Your task to perform on an android device: Play the last video I watched on Youtube Image 0: 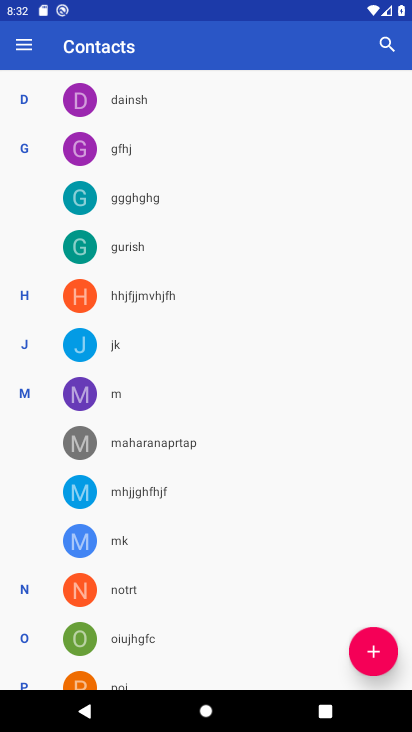
Step 0: press home button
Your task to perform on an android device: Play the last video I watched on Youtube Image 1: 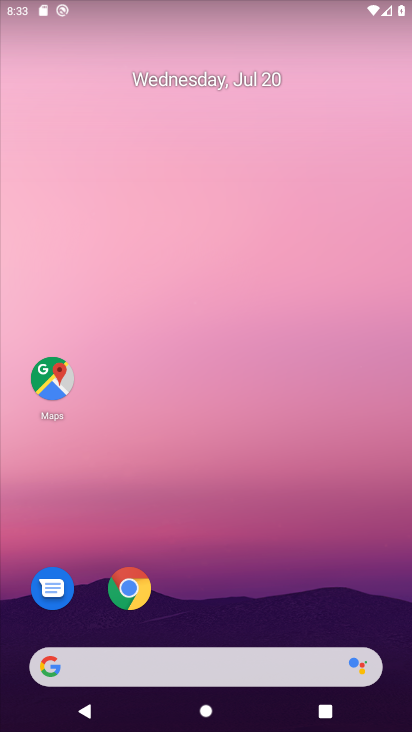
Step 1: drag from (239, 618) to (254, 32)
Your task to perform on an android device: Play the last video I watched on Youtube Image 2: 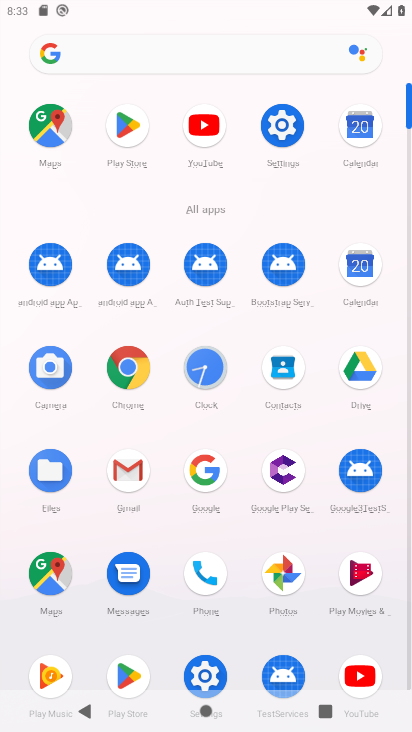
Step 2: click (361, 669)
Your task to perform on an android device: Play the last video I watched on Youtube Image 3: 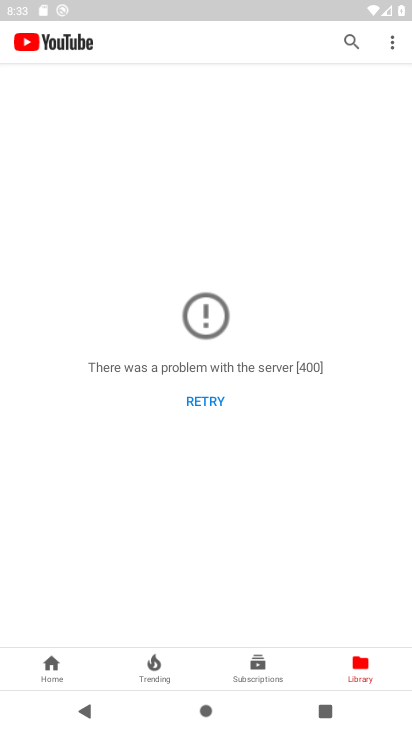
Step 3: task complete